Your task to perform on an android device: make emails show in primary in the gmail app Image 0: 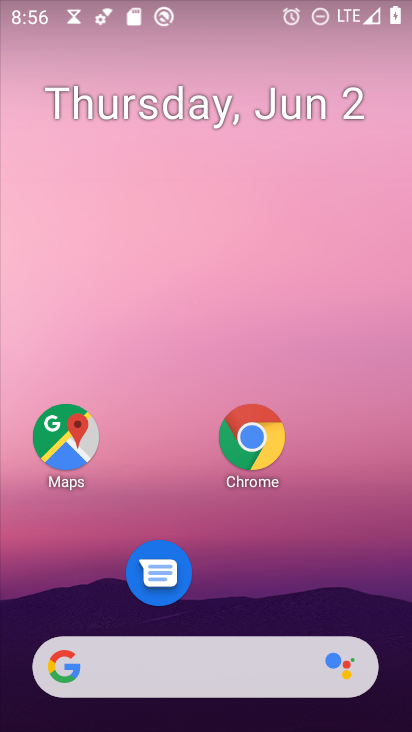
Step 0: press home button
Your task to perform on an android device: make emails show in primary in the gmail app Image 1: 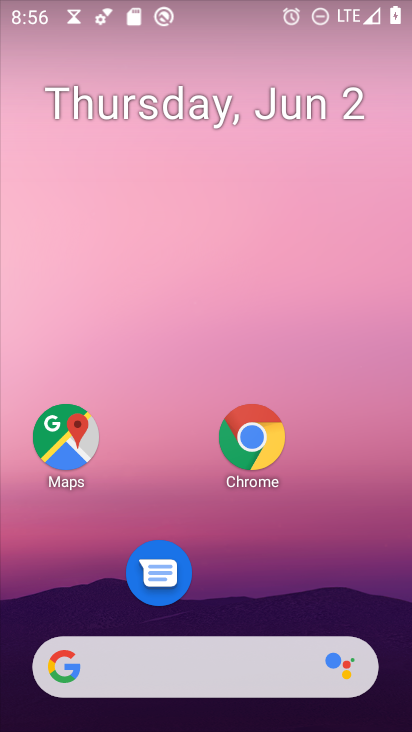
Step 1: drag from (244, 681) to (289, 128)
Your task to perform on an android device: make emails show in primary in the gmail app Image 2: 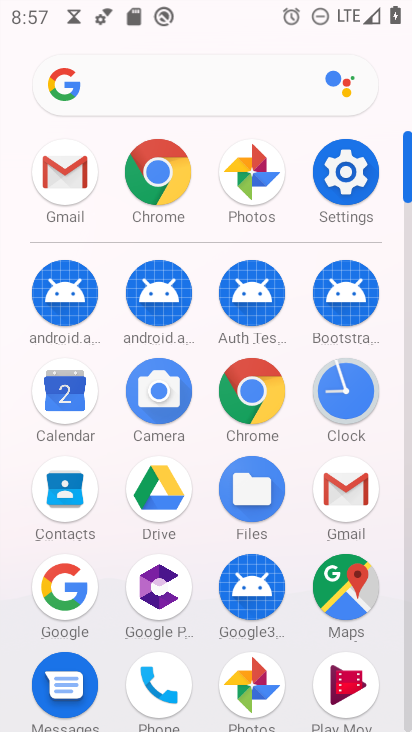
Step 2: click (357, 489)
Your task to perform on an android device: make emails show in primary in the gmail app Image 3: 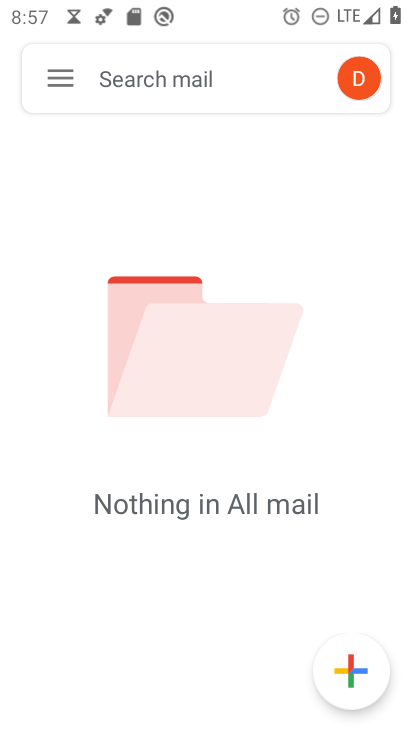
Step 3: click (60, 81)
Your task to perform on an android device: make emails show in primary in the gmail app Image 4: 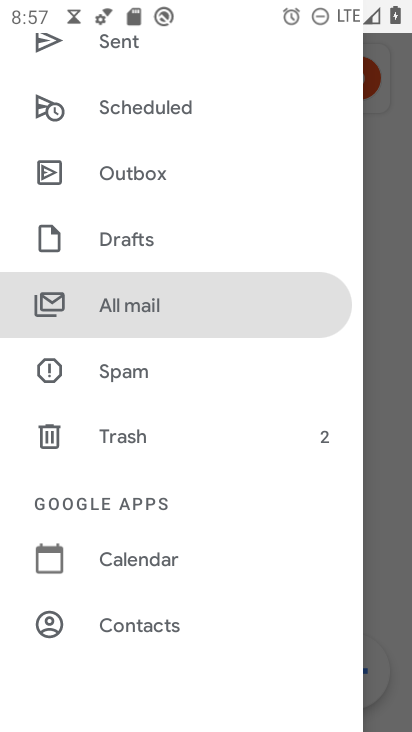
Step 4: drag from (188, 605) to (220, 177)
Your task to perform on an android device: make emails show in primary in the gmail app Image 5: 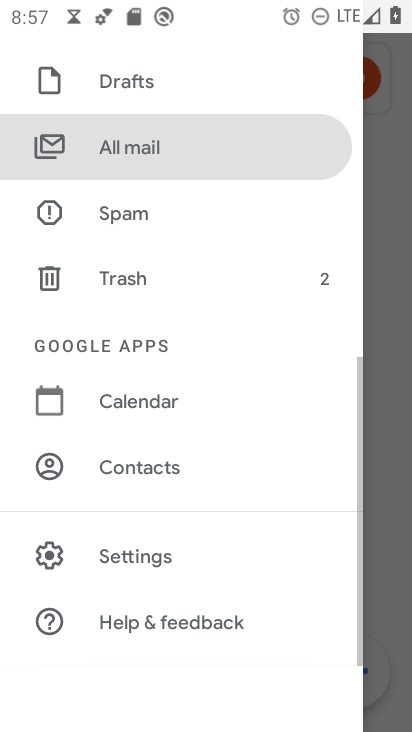
Step 5: click (164, 557)
Your task to perform on an android device: make emails show in primary in the gmail app Image 6: 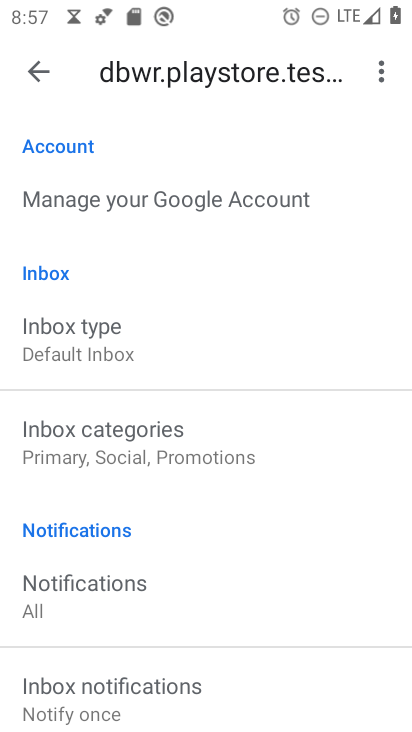
Step 6: click (126, 457)
Your task to perform on an android device: make emails show in primary in the gmail app Image 7: 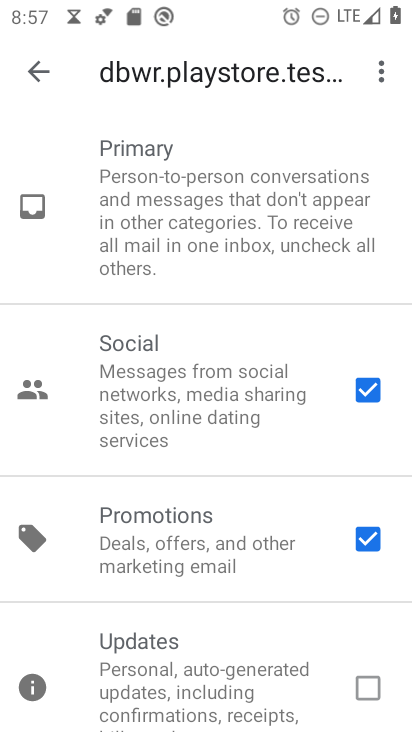
Step 7: click (370, 387)
Your task to perform on an android device: make emails show in primary in the gmail app Image 8: 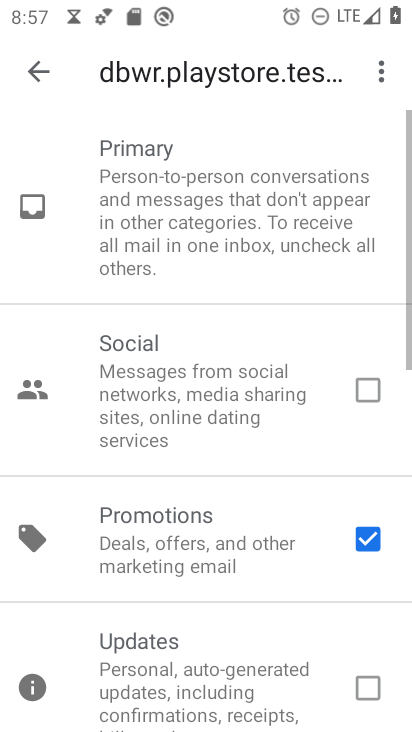
Step 8: click (371, 546)
Your task to perform on an android device: make emails show in primary in the gmail app Image 9: 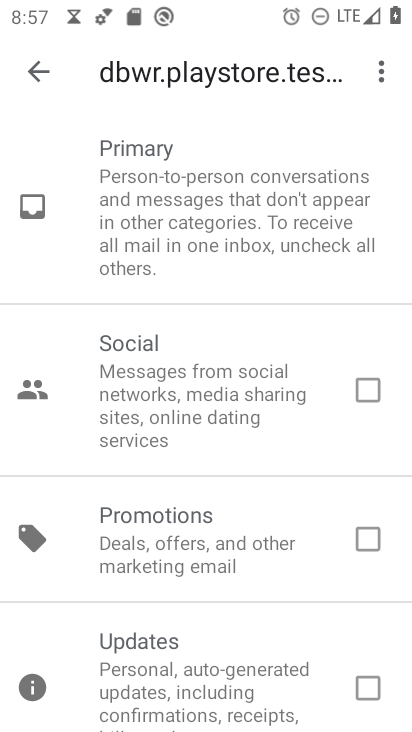
Step 9: click (29, 66)
Your task to perform on an android device: make emails show in primary in the gmail app Image 10: 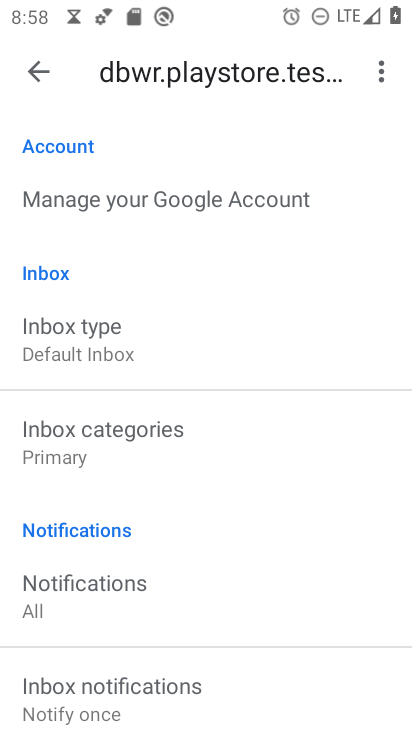
Step 10: task complete